Your task to perform on an android device: check google app version Image 0: 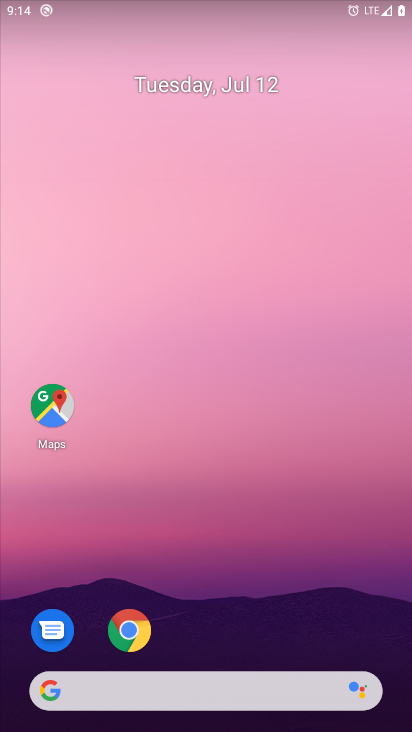
Step 0: drag from (286, 617) to (208, 209)
Your task to perform on an android device: check google app version Image 1: 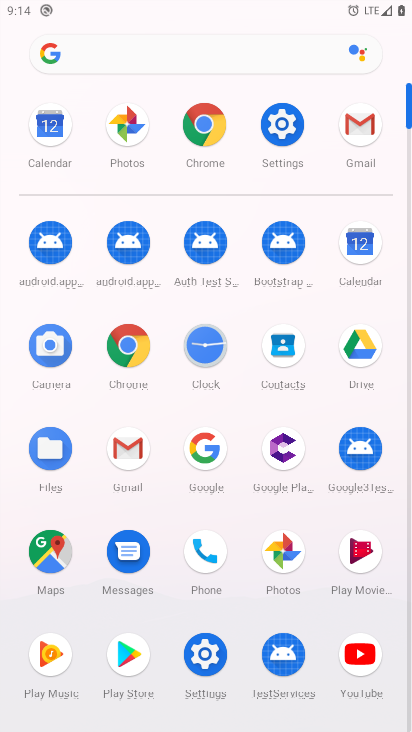
Step 1: click (197, 456)
Your task to perform on an android device: check google app version Image 2: 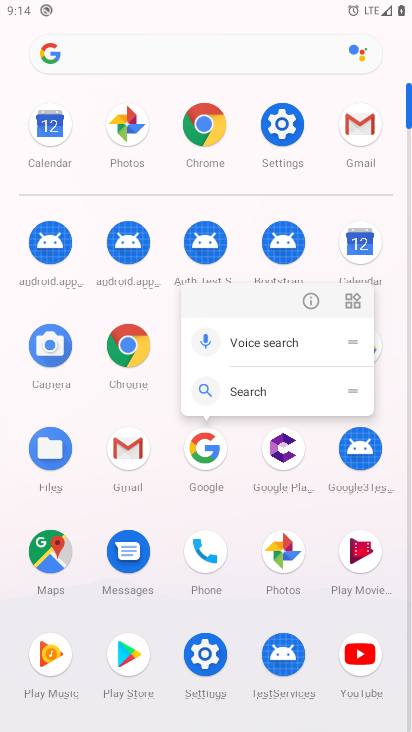
Step 2: click (307, 304)
Your task to perform on an android device: check google app version Image 3: 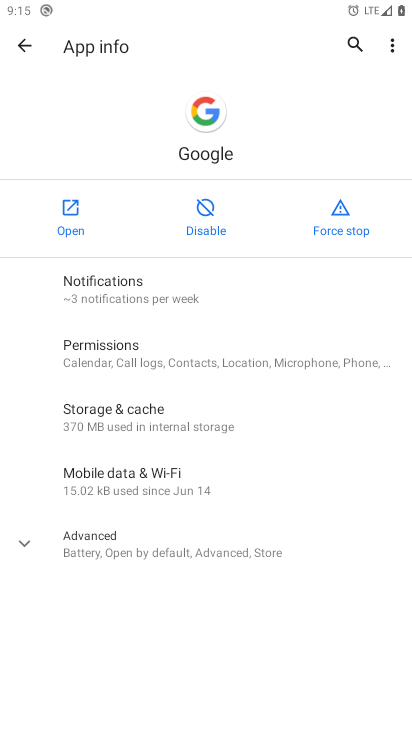
Step 3: click (28, 550)
Your task to perform on an android device: check google app version Image 4: 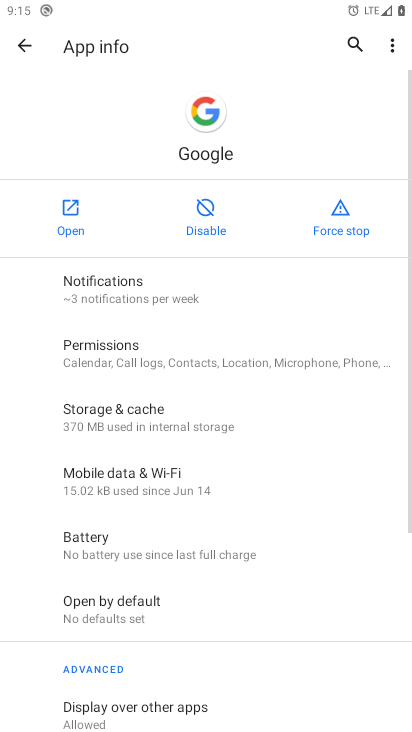
Step 4: task complete